Your task to perform on an android device: Show me recent news Image 0: 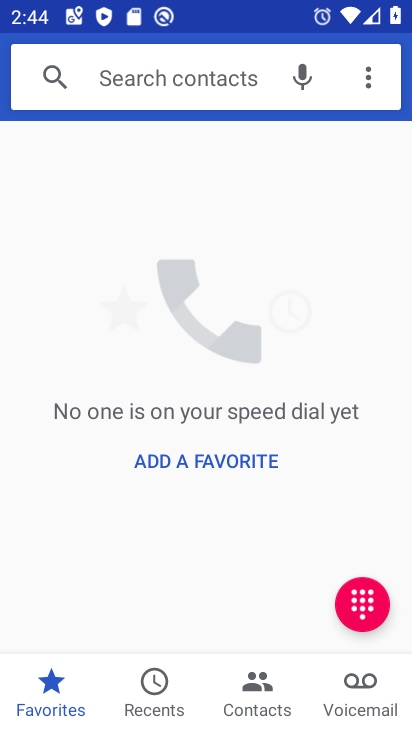
Step 0: press home button
Your task to perform on an android device: Show me recent news Image 1: 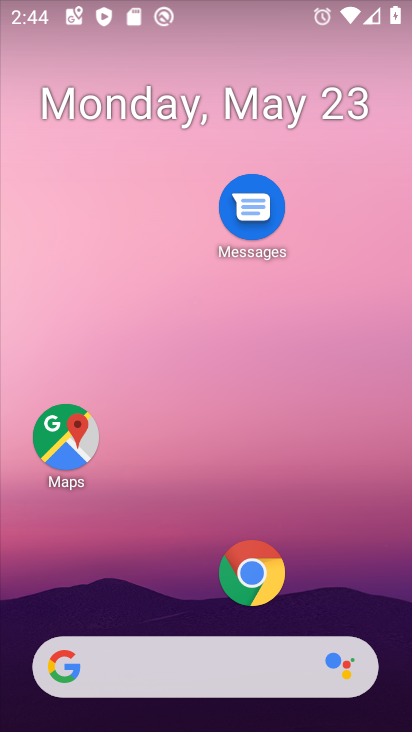
Step 1: drag from (283, 513) to (310, 15)
Your task to perform on an android device: Show me recent news Image 2: 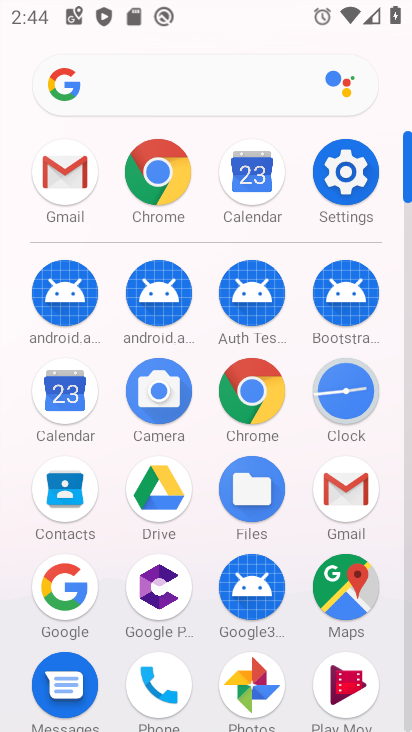
Step 2: click (260, 392)
Your task to perform on an android device: Show me recent news Image 3: 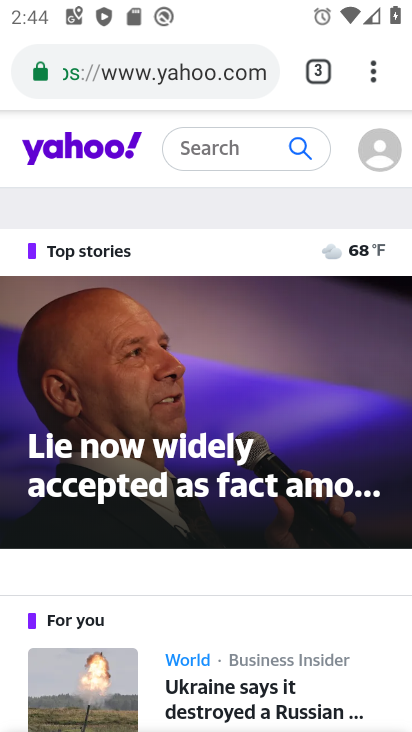
Step 3: click (229, 73)
Your task to perform on an android device: Show me recent news Image 4: 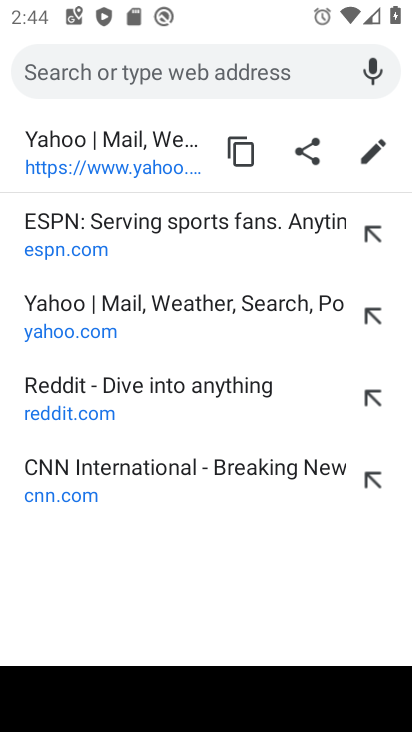
Step 4: type "recent news"
Your task to perform on an android device: Show me recent news Image 5: 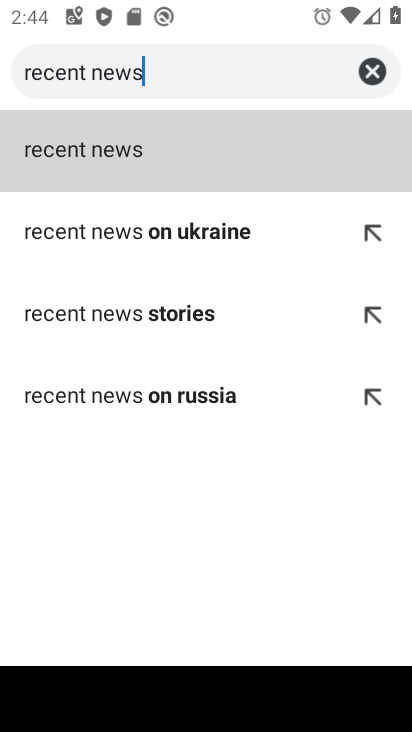
Step 5: click (279, 154)
Your task to perform on an android device: Show me recent news Image 6: 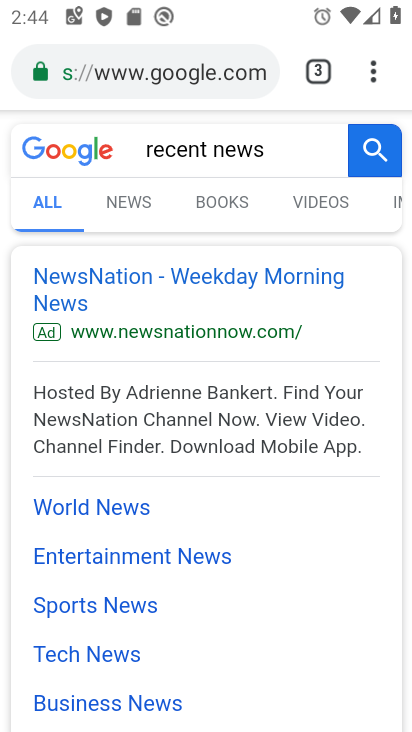
Step 6: task complete